Your task to perform on an android device: Search for Italian restaurants on Maps Image 0: 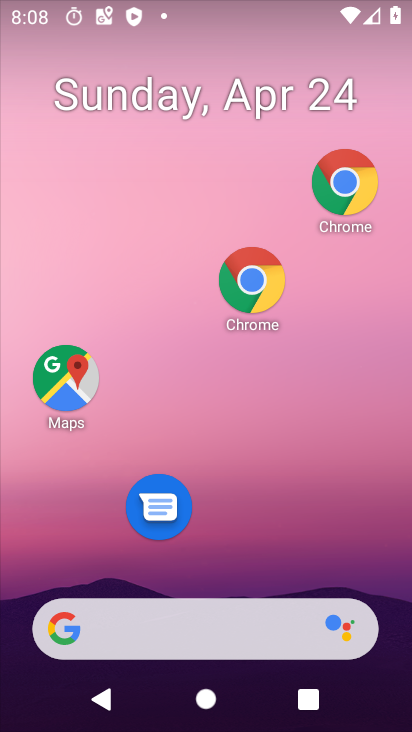
Step 0: drag from (242, 698) to (153, 26)
Your task to perform on an android device: Search for Italian restaurants on Maps Image 1: 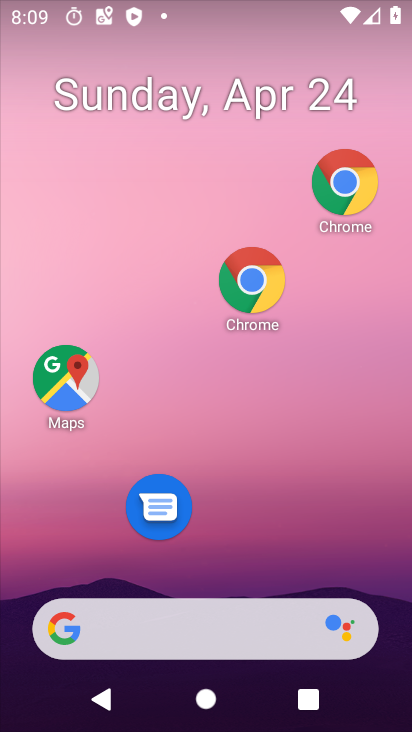
Step 1: drag from (267, 680) to (165, 48)
Your task to perform on an android device: Search for Italian restaurants on Maps Image 2: 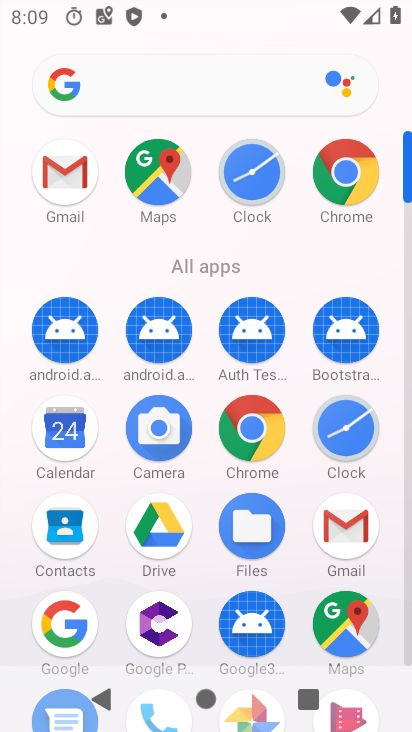
Step 2: drag from (170, 13) to (177, 130)
Your task to perform on an android device: Search for Italian restaurants on Maps Image 3: 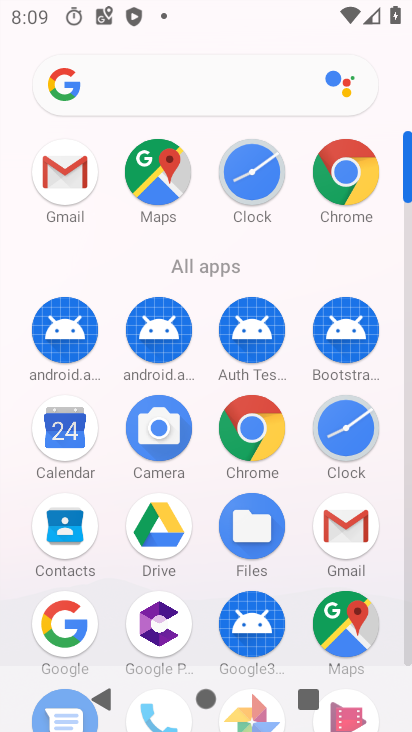
Step 3: click (145, 180)
Your task to perform on an android device: Search for Italian restaurants on Maps Image 4: 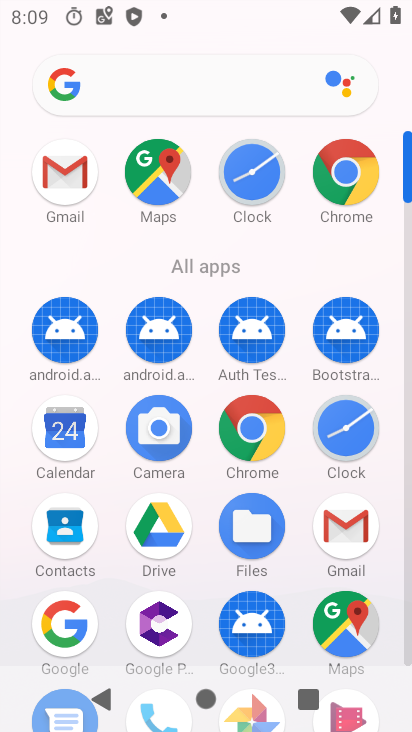
Step 4: click (143, 182)
Your task to perform on an android device: Search for Italian restaurants on Maps Image 5: 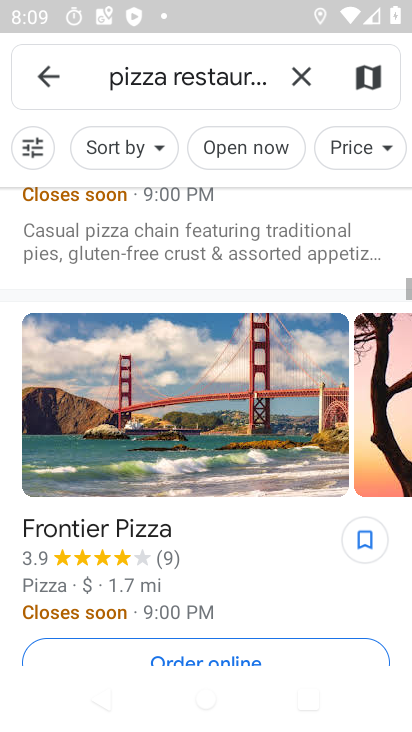
Step 5: click (298, 72)
Your task to perform on an android device: Search for Italian restaurants on Maps Image 6: 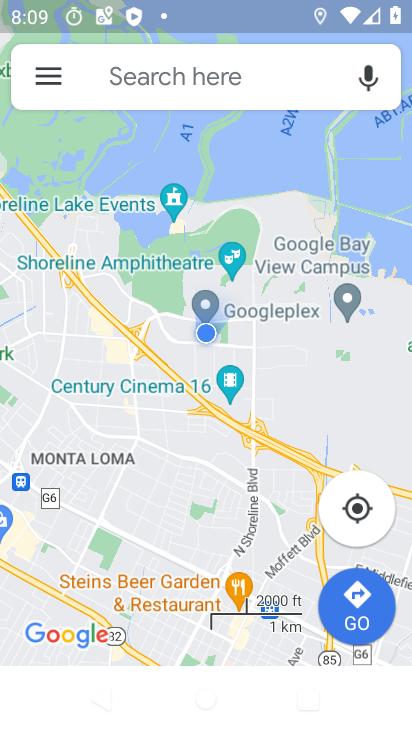
Step 6: click (113, 74)
Your task to perform on an android device: Search for Italian restaurants on Maps Image 7: 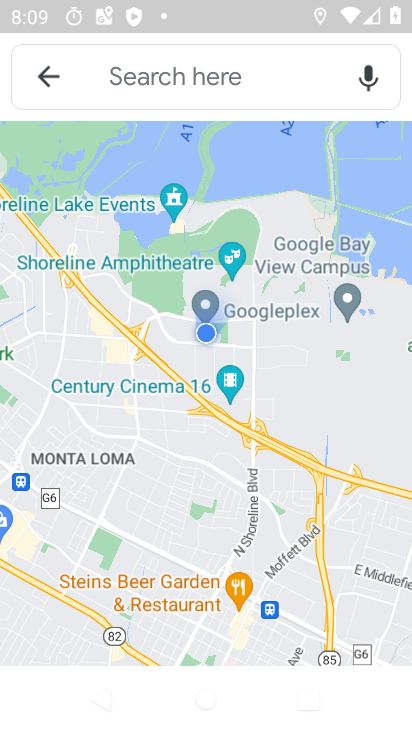
Step 7: click (116, 73)
Your task to perform on an android device: Search for Italian restaurants on Maps Image 8: 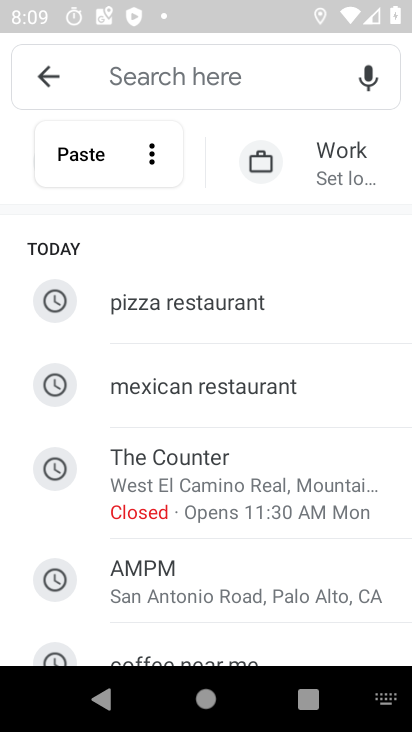
Step 8: type "italian resta"
Your task to perform on an android device: Search for Italian restaurants on Maps Image 9: 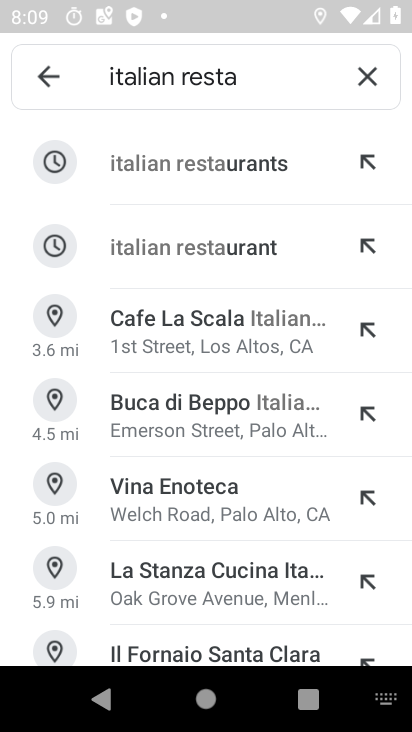
Step 9: click (257, 159)
Your task to perform on an android device: Search for Italian restaurants on Maps Image 10: 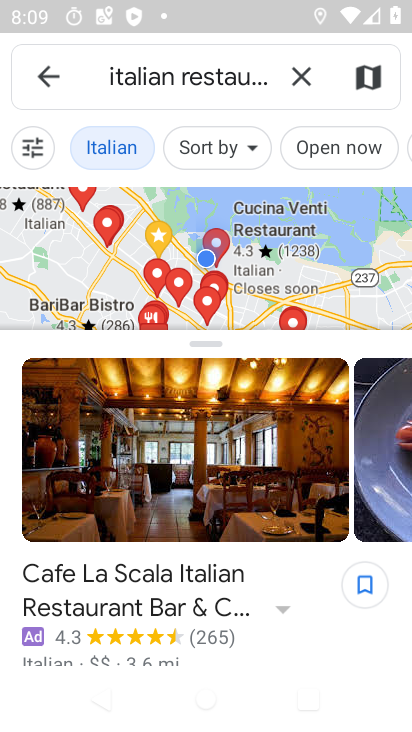
Step 10: task complete